Your task to perform on an android device: Open Yahoo.com Image 0: 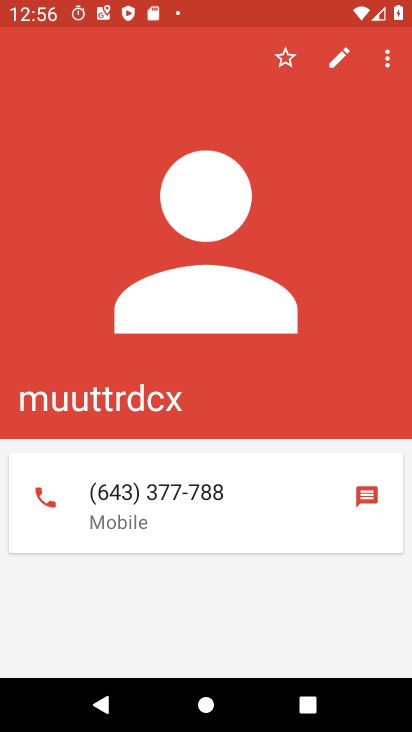
Step 0: press home button
Your task to perform on an android device: Open Yahoo.com Image 1: 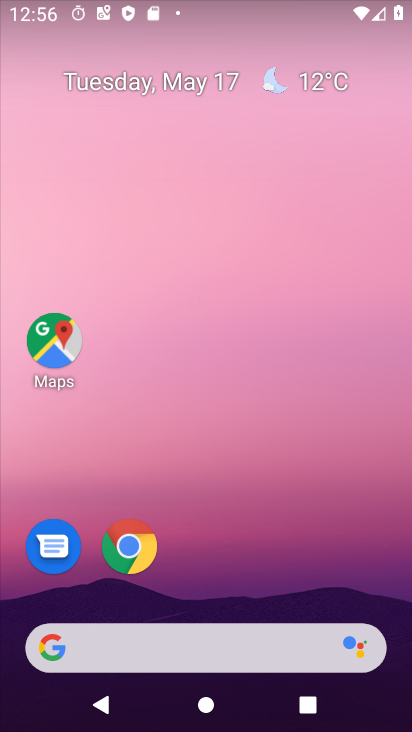
Step 1: click (124, 551)
Your task to perform on an android device: Open Yahoo.com Image 2: 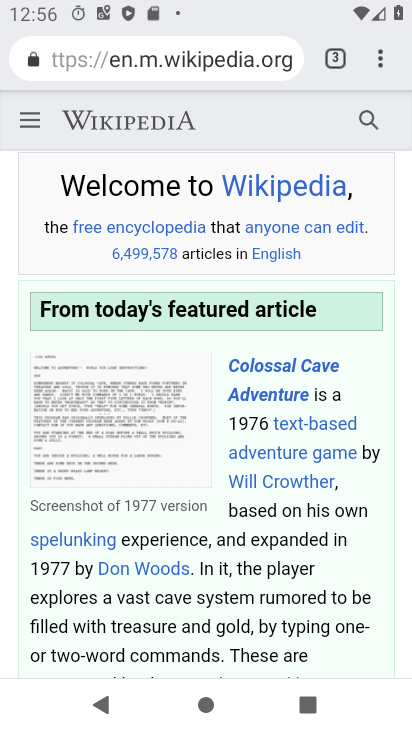
Step 2: drag from (374, 61) to (295, 113)
Your task to perform on an android device: Open Yahoo.com Image 3: 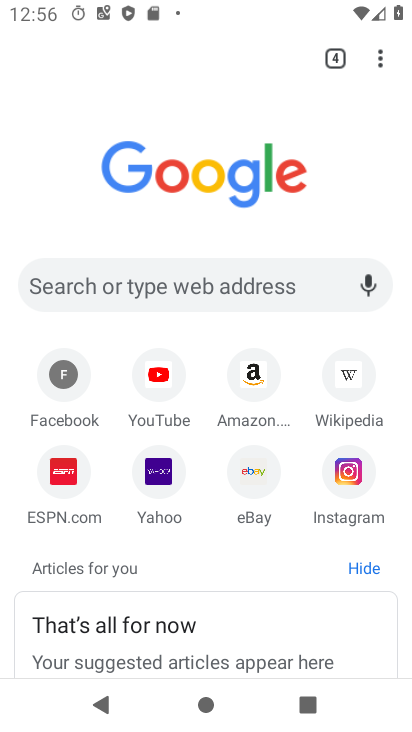
Step 3: click (159, 468)
Your task to perform on an android device: Open Yahoo.com Image 4: 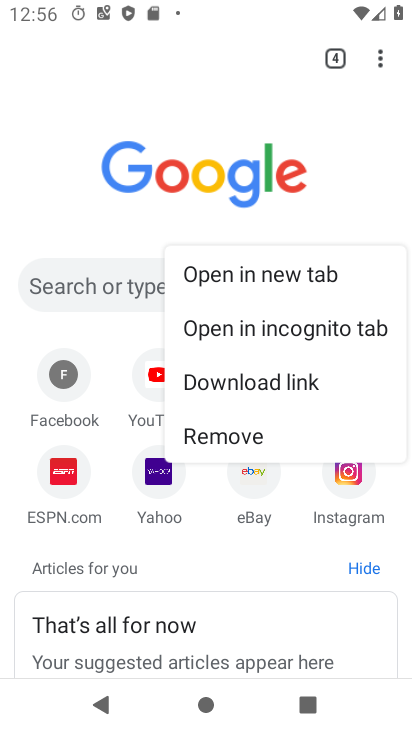
Step 4: click (155, 469)
Your task to perform on an android device: Open Yahoo.com Image 5: 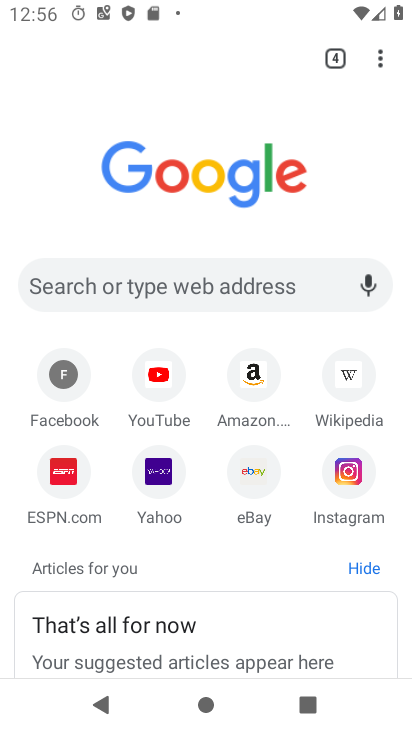
Step 5: click (161, 476)
Your task to perform on an android device: Open Yahoo.com Image 6: 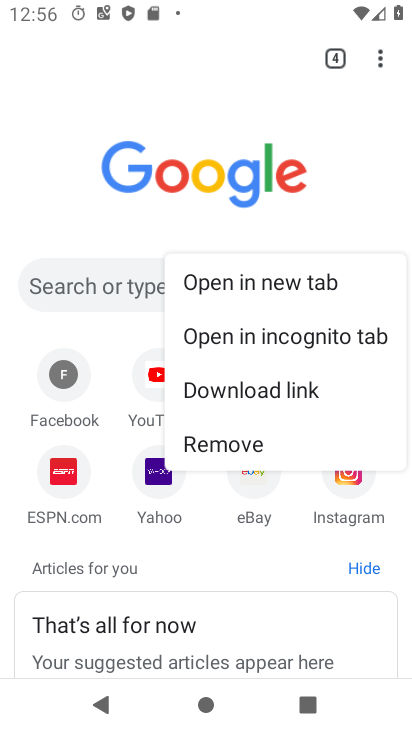
Step 6: click (155, 479)
Your task to perform on an android device: Open Yahoo.com Image 7: 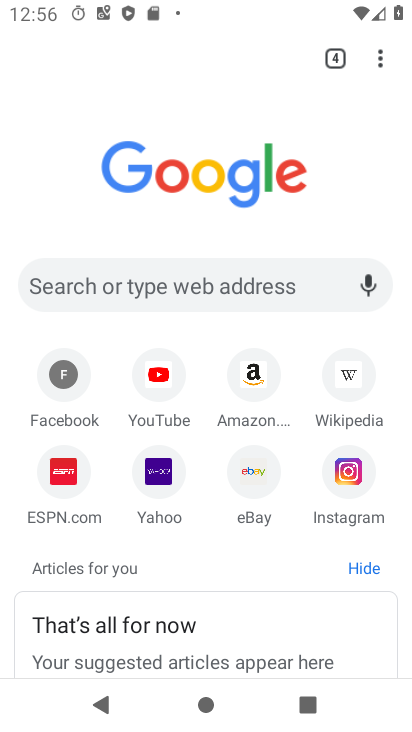
Step 7: click (162, 473)
Your task to perform on an android device: Open Yahoo.com Image 8: 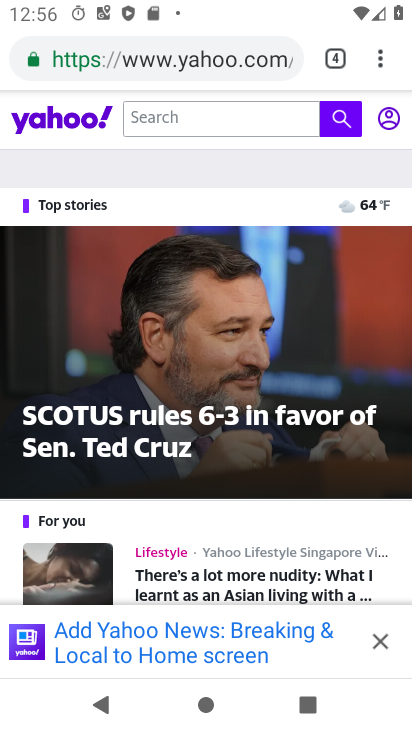
Step 8: task complete